Your task to perform on an android device: Open the calendar app, open the side menu, and click the "Day" option Image 0: 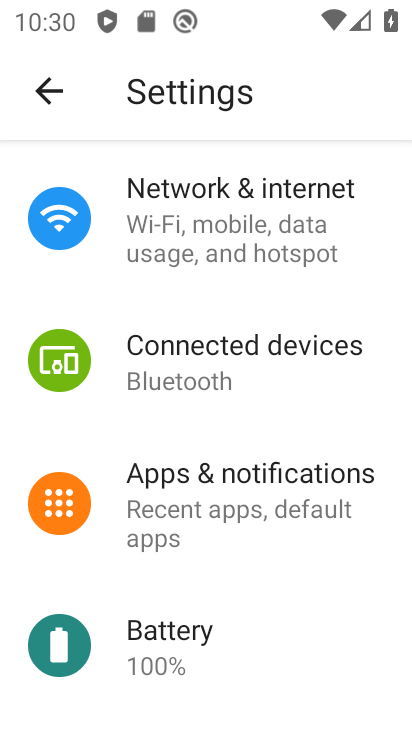
Step 0: press home button
Your task to perform on an android device: Open the calendar app, open the side menu, and click the "Day" option Image 1: 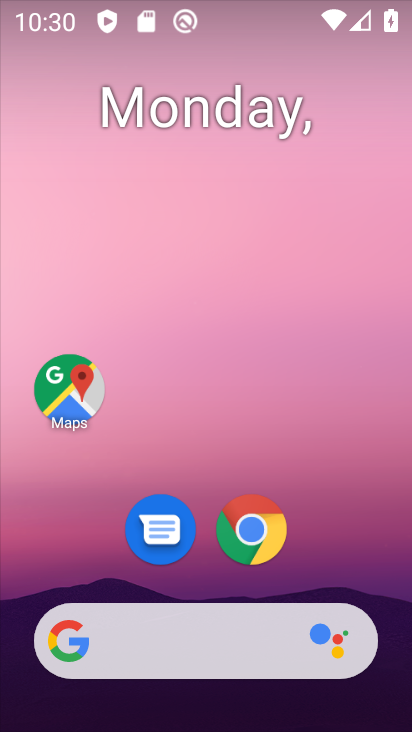
Step 1: drag from (230, 720) to (231, 46)
Your task to perform on an android device: Open the calendar app, open the side menu, and click the "Day" option Image 2: 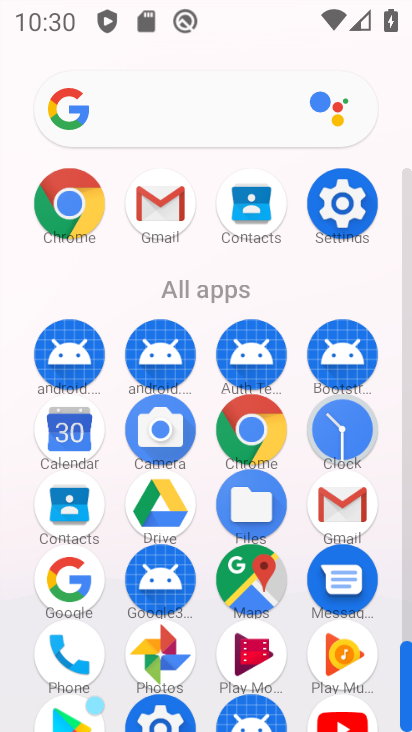
Step 2: click (66, 450)
Your task to perform on an android device: Open the calendar app, open the side menu, and click the "Day" option Image 3: 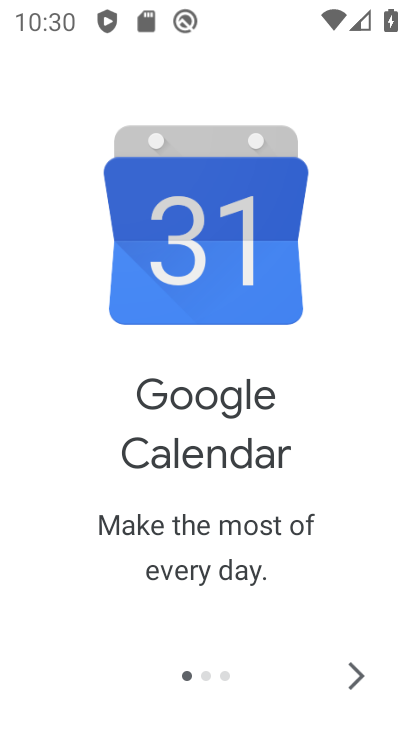
Step 3: click (360, 674)
Your task to perform on an android device: Open the calendar app, open the side menu, and click the "Day" option Image 4: 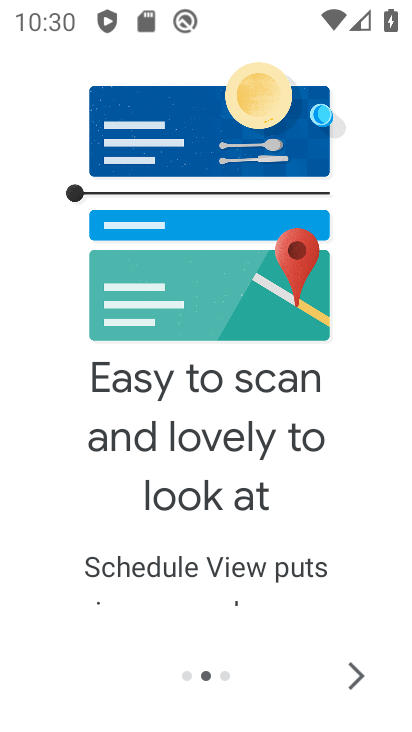
Step 4: click (360, 674)
Your task to perform on an android device: Open the calendar app, open the side menu, and click the "Day" option Image 5: 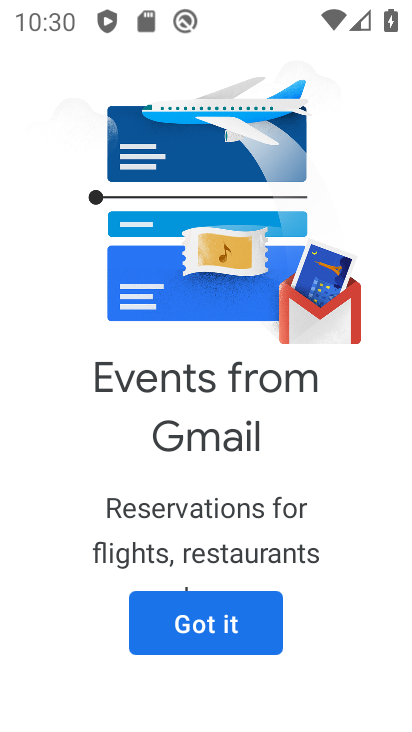
Step 5: click (216, 621)
Your task to perform on an android device: Open the calendar app, open the side menu, and click the "Day" option Image 6: 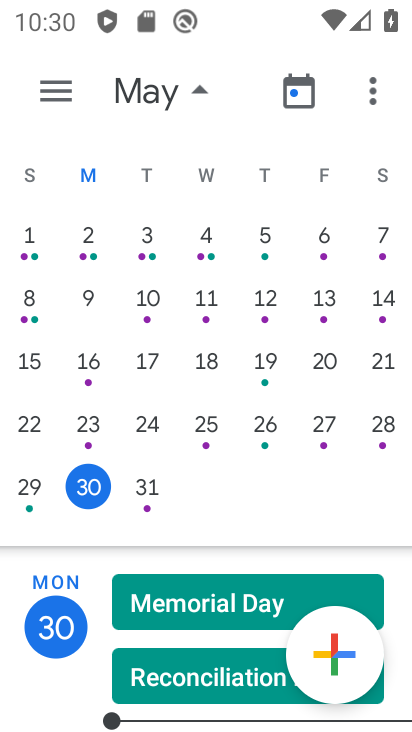
Step 6: click (60, 91)
Your task to perform on an android device: Open the calendar app, open the side menu, and click the "Day" option Image 7: 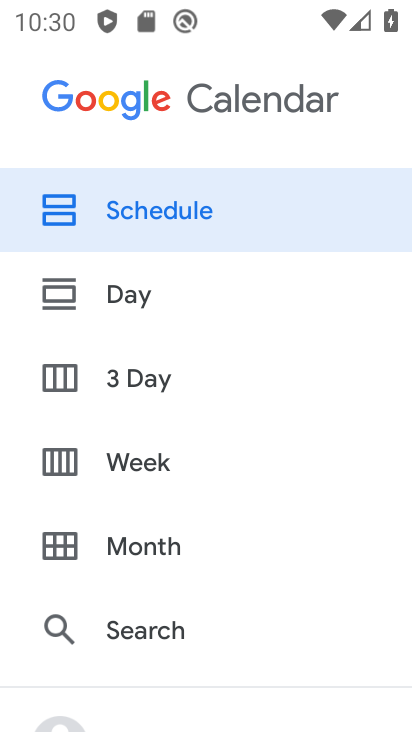
Step 7: click (123, 300)
Your task to perform on an android device: Open the calendar app, open the side menu, and click the "Day" option Image 8: 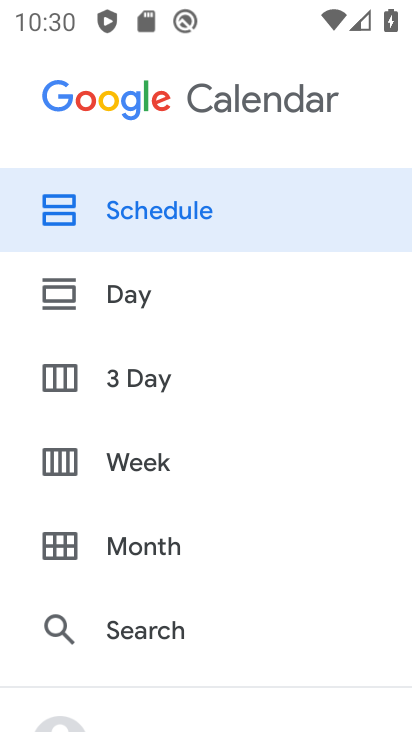
Step 8: click (129, 292)
Your task to perform on an android device: Open the calendar app, open the side menu, and click the "Day" option Image 9: 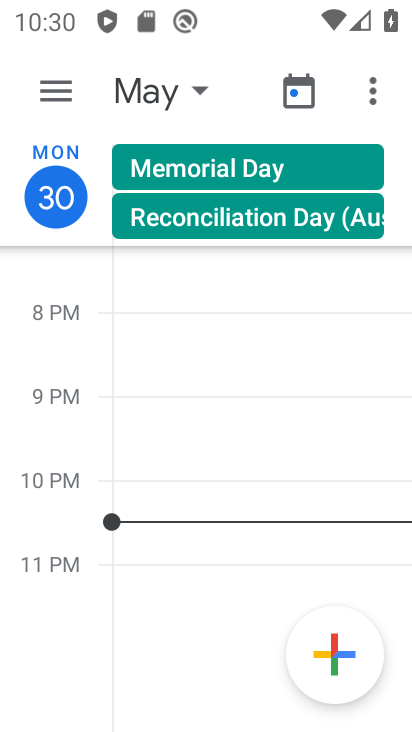
Step 9: task complete